Your task to perform on an android device: turn on wifi Image 0: 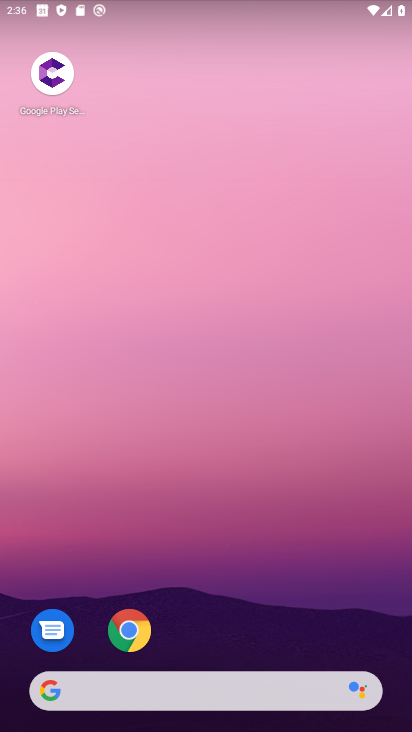
Step 0: drag from (206, 681) to (281, 19)
Your task to perform on an android device: turn on wifi Image 1: 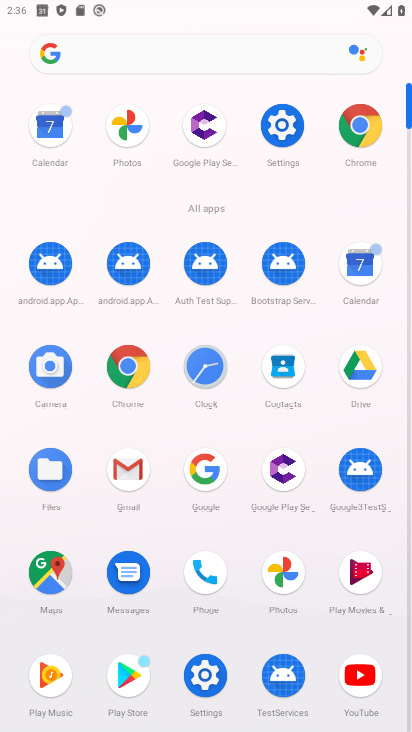
Step 1: click (285, 120)
Your task to perform on an android device: turn on wifi Image 2: 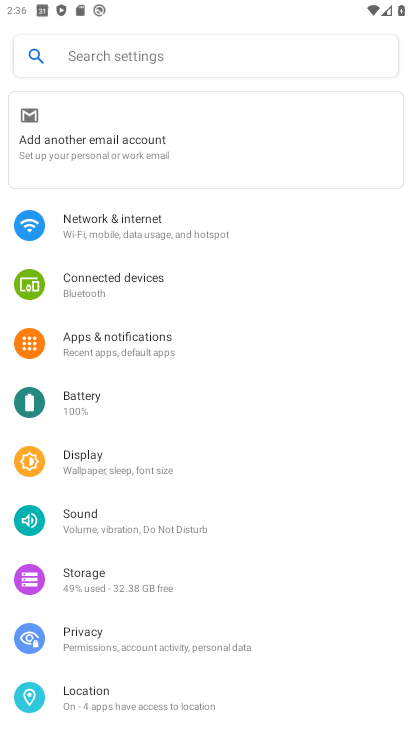
Step 2: click (101, 222)
Your task to perform on an android device: turn on wifi Image 3: 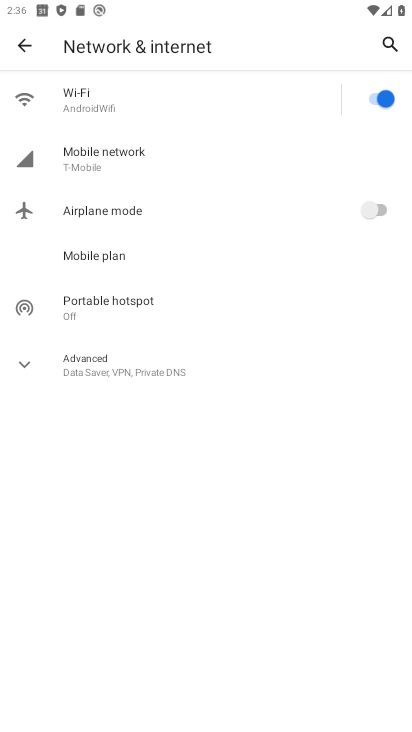
Step 3: task complete